Your task to perform on an android device: Open Google Chrome and open the bookmarks view Image 0: 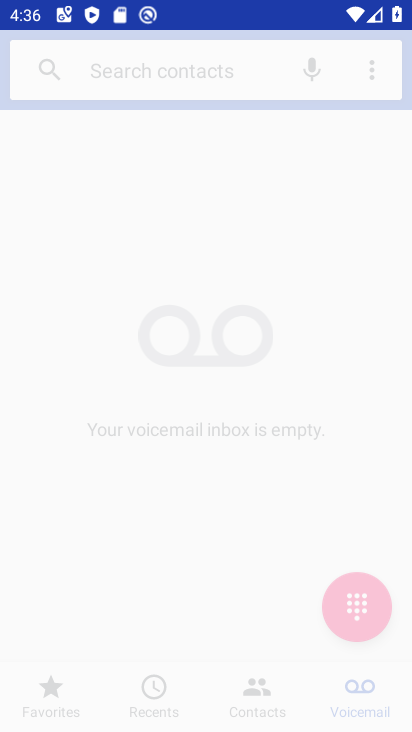
Step 0: drag from (341, 482) to (251, 1)
Your task to perform on an android device: Open Google Chrome and open the bookmarks view Image 1: 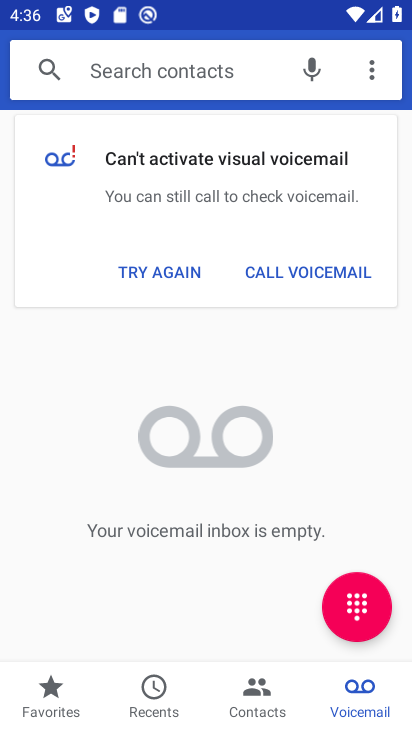
Step 1: press back button
Your task to perform on an android device: Open Google Chrome and open the bookmarks view Image 2: 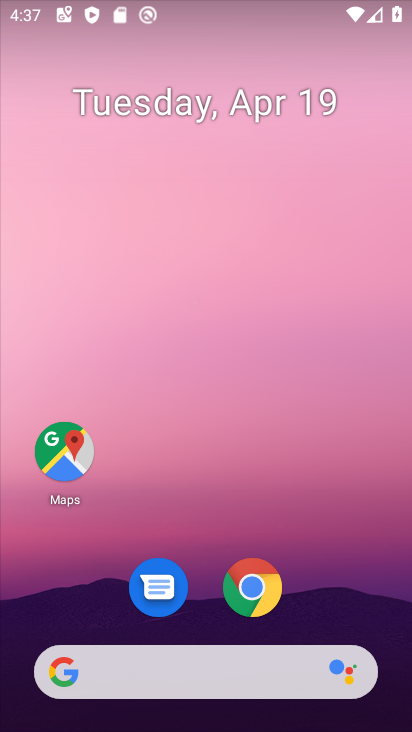
Step 2: drag from (333, 565) to (216, 33)
Your task to perform on an android device: Open Google Chrome and open the bookmarks view Image 3: 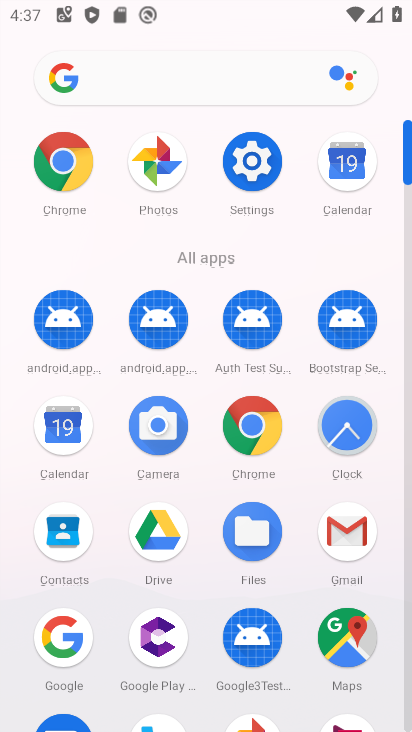
Step 3: click (55, 157)
Your task to perform on an android device: Open Google Chrome and open the bookmarks view Image 4: 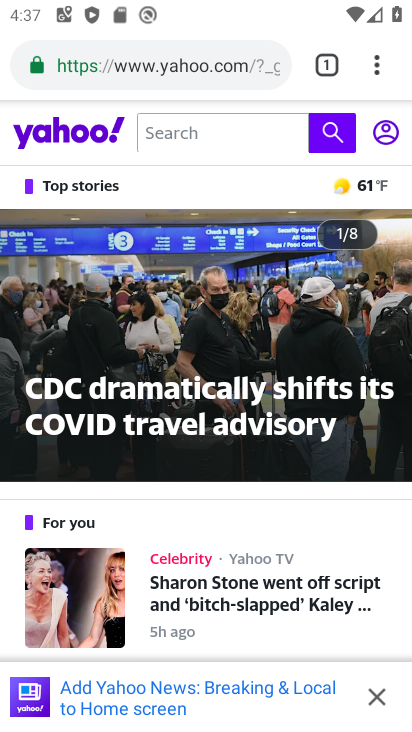
Step 4: task complete